Your task to perform on an android device: Clear the cart on newegg.com. Search for razer naga on newegg.com, select the first entry, add it to the cart, then select checkout. Image 0: 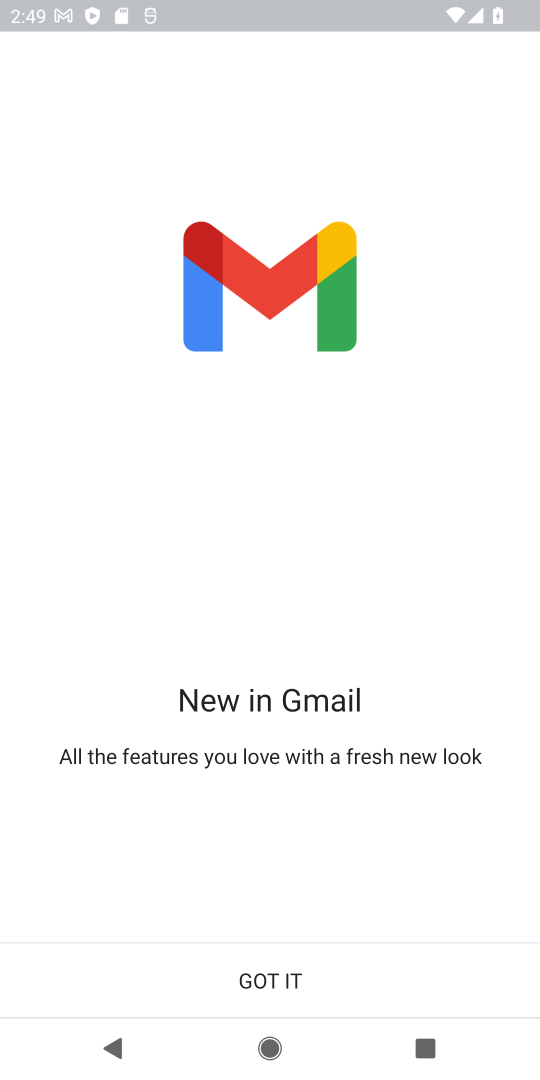
Step 0: press home button
Your task to perform on an android device: Clear the cart on newegg.com. Search for razer naga on newegg.com, select the first entry, add it to the cart, then select checkout. Image 1: 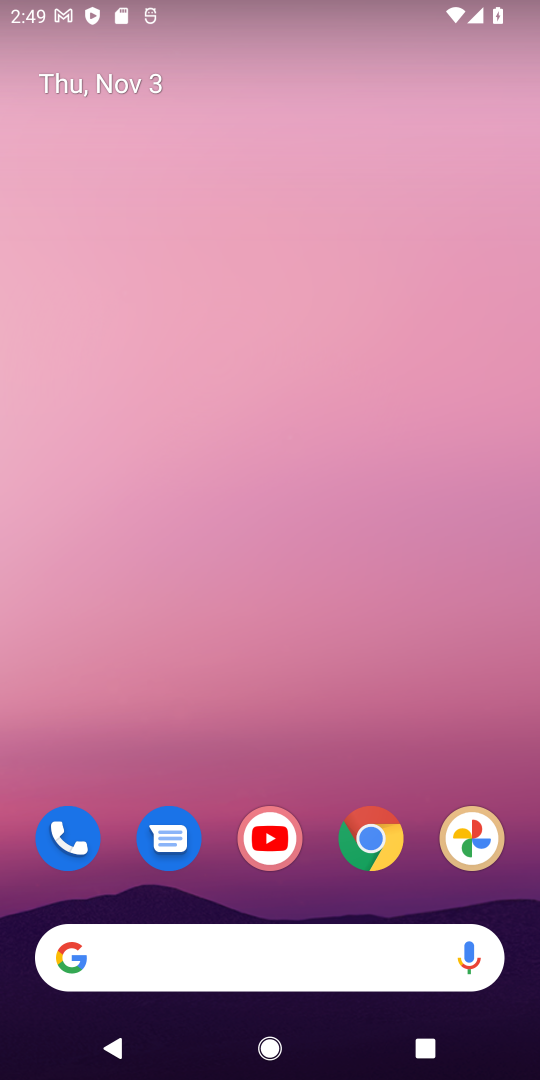
Step 1: drag from (311, 873) to (332, 76)
Your task to perform on an android device: Clear the cart on newegg.com. Search for razer naga on newegg.com, select the first entry, add it to the cart, then select checkout. Image 2: 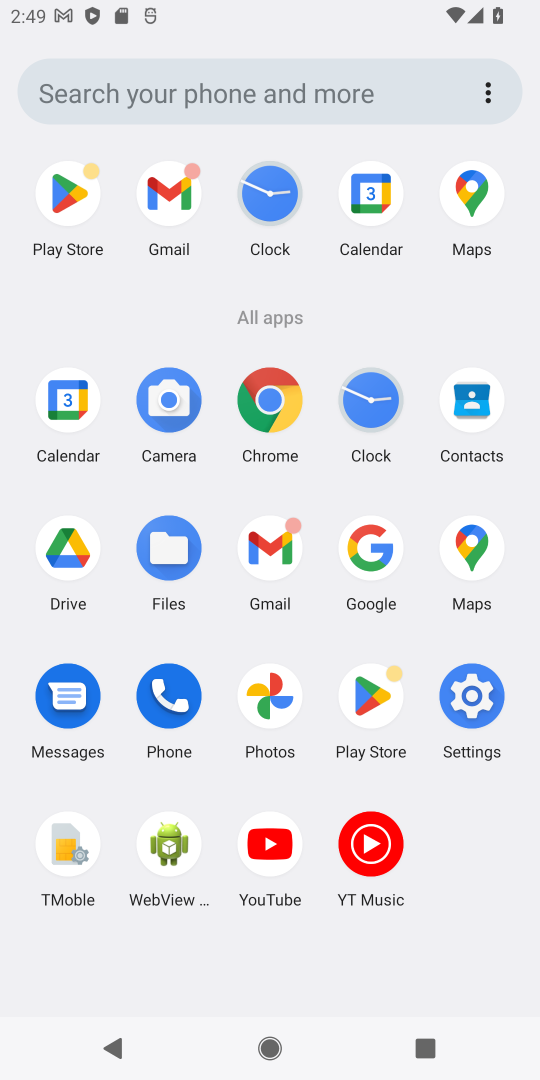
Step 2: click (266, 401)
Your task to perform on an android device: Clear the cart on newegg.com. Search for razer naga on newegg.com, select the first entry, add it to the cart, then select checkout. Image 3: 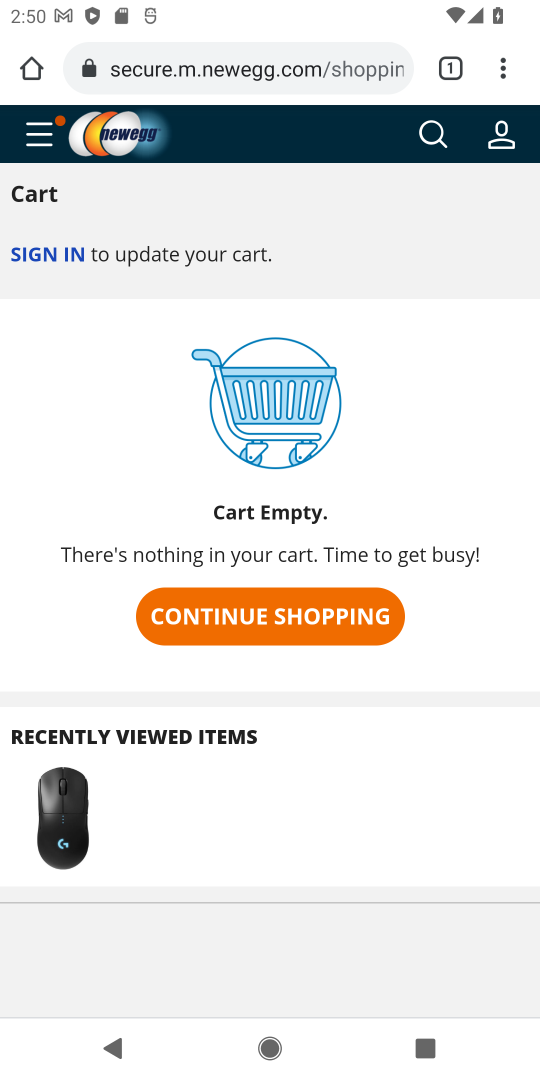
Step 3: click (423, 140)
Your task to perform on an android device: Clear the cart on newegg.com. Search for razer naga on newegg.com, select the first entry, add it to the cart, then select checkout. Image 4: 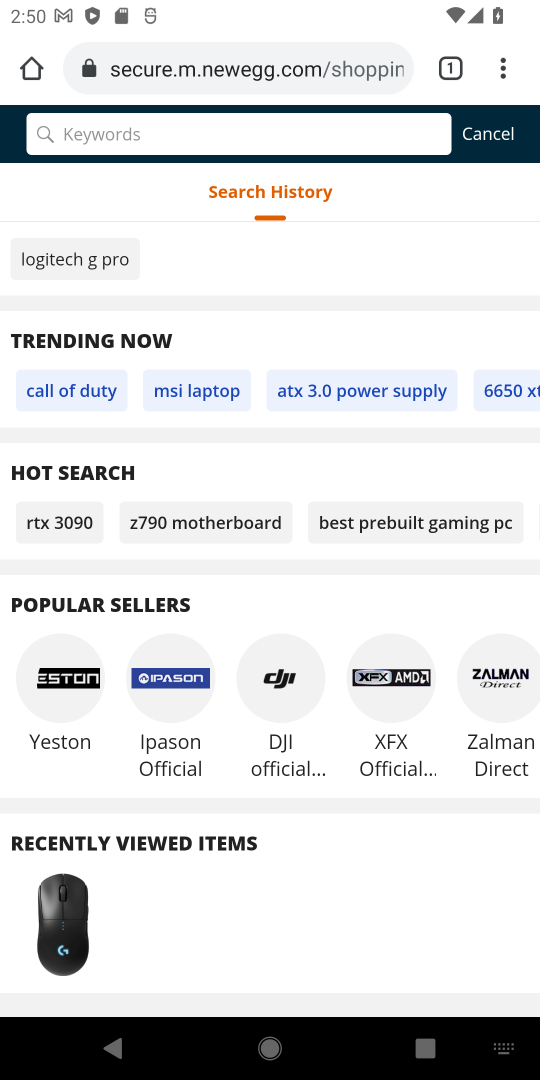
Step 4: type "razer naga"
Your task to perform on an android device: Clear the cart on newegg.com. Search for razer naga on newegg.com, select the first entry, add it to the cart, then select checkout. Image 5: 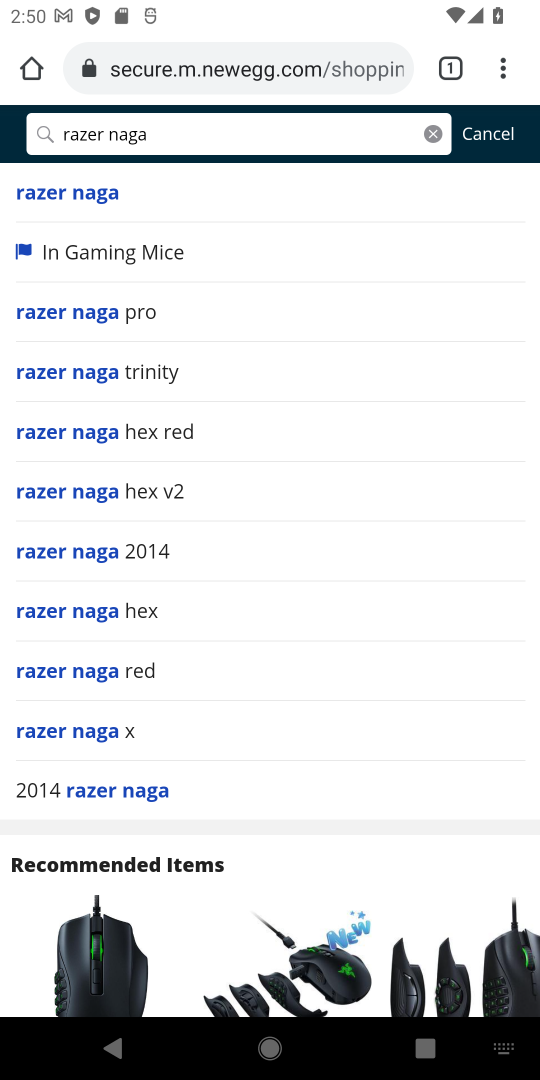
Step 5: press enter
Your task to perform on an android device: Clear the cart on newegg.com. Search for razer naga on newegg.com, select the first entry, add it to the cart, then select checkout. Image 6: 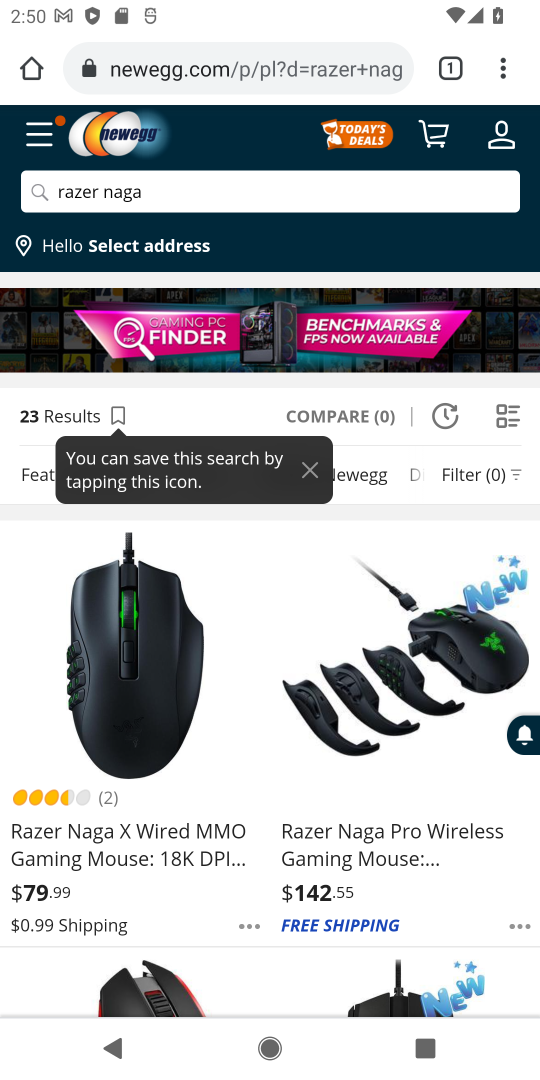
Step 6: click (301, 481)
Your task to perform on an android device: Clear the cart on newegg.com. Search for razer naga on newegg.com, select the first entry, add it to the cart, then select checkout. Image 7: 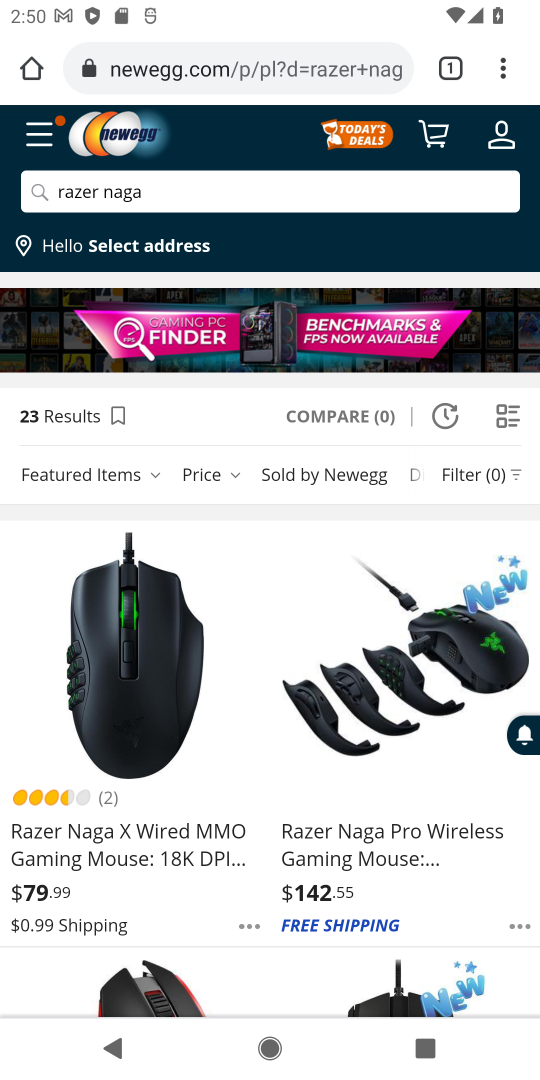
Step 7: click (175, 835)
Your task to perform on an android device: Clear the cart on newegg.com. Search for razer naga on newegg.com, select the first entry, add it to the cart, then select checkout. Image 8: 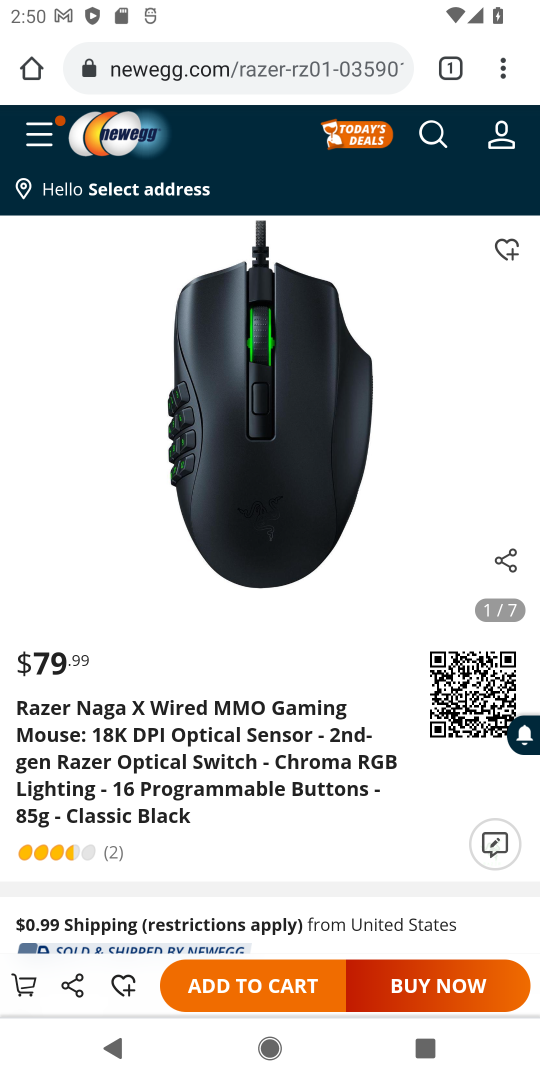
Step 8: click (273, 981)
Your task to perform on an android device: Clear the cart on newegg.com. Search for razer naga on newegg.com, select the first entry, add it to the cart, then select checkout. Image 9: 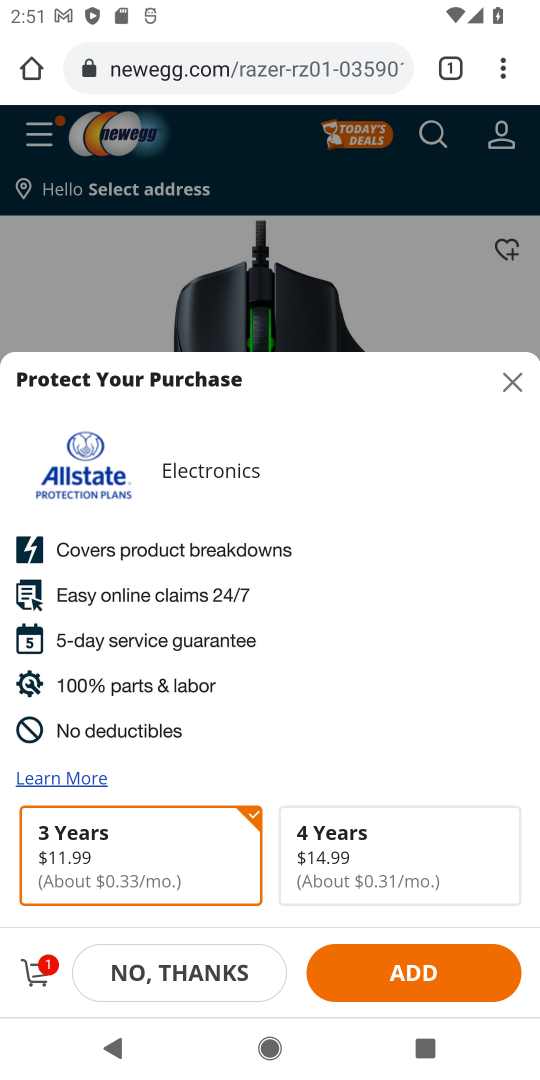
Step 9: click (29, 986)
Your task to perform on an android device: Clear the cart on newegg.com. Search for razer naga on newegg.com, select the first entry, add it to the cart, then select checkout. Image 10: 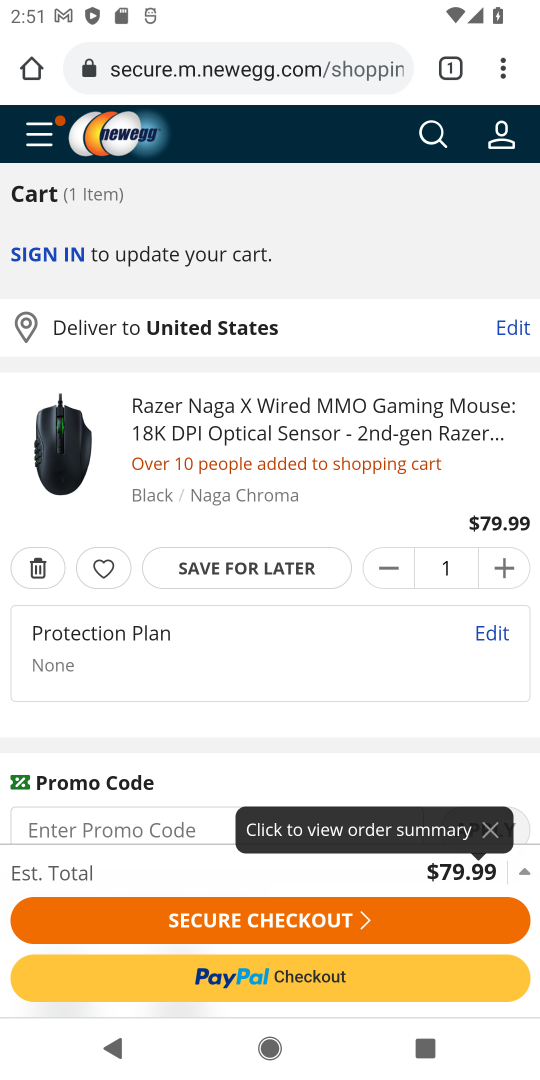
Step 10: click (316, 916)
Your task to perform on an android device: Clear the cart on newegg.com. Search for razer naga on newegg.com, select the first entry, add it to the cart, then select checkout. Image 11: 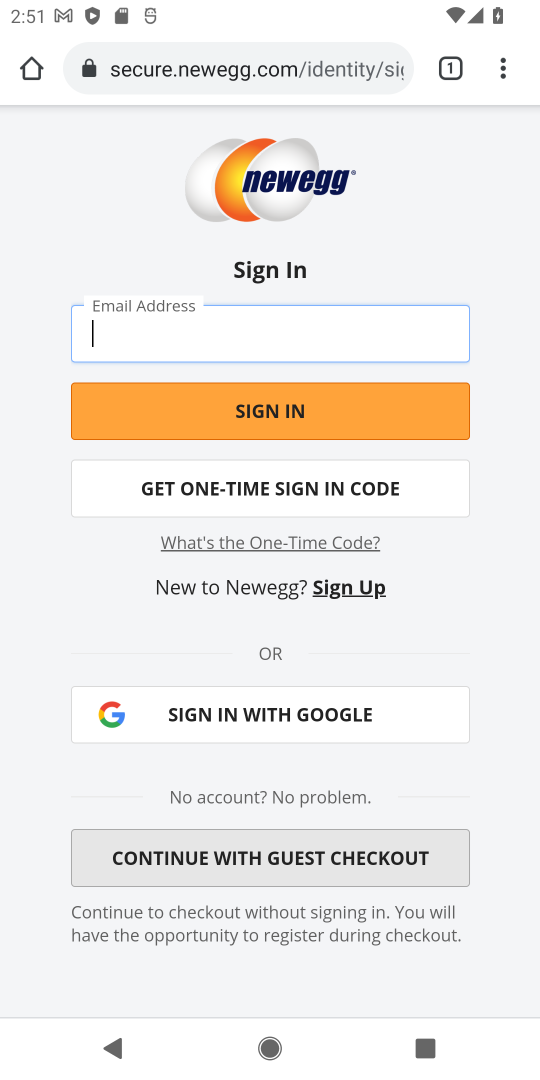
Step 11: task complete